Your task to perform on an android device: move a message to another label in the gmail app Image 0: 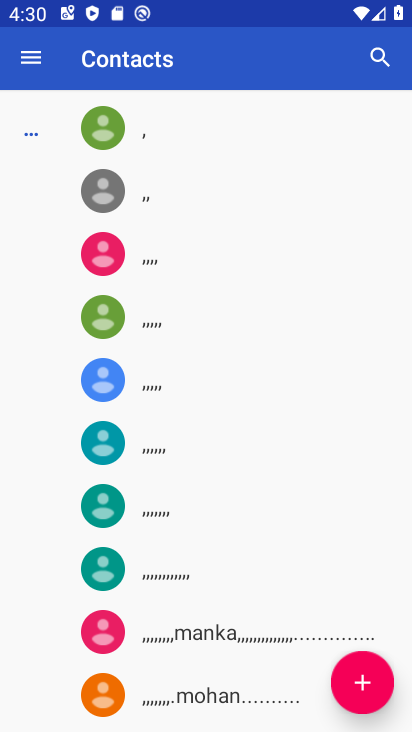
Step 0: press home button
Your task to perform on an android device: move a message to another label in the gmail app Image 1: 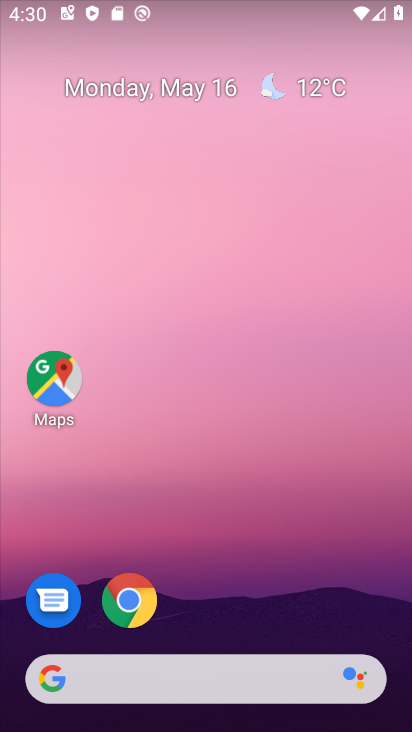
Step 1: drag from (165, 624) to (165, 369)
Your task to perform on an android device: move a message to another label in the gmail app Image 2: 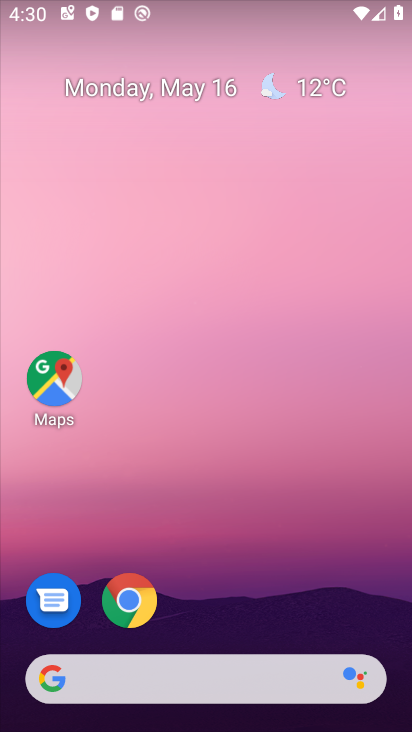
Step 2: drag from (186, 651) to (186, 263)
Your task to perform on an android device: move a message to another label in the gmail app Image 3: 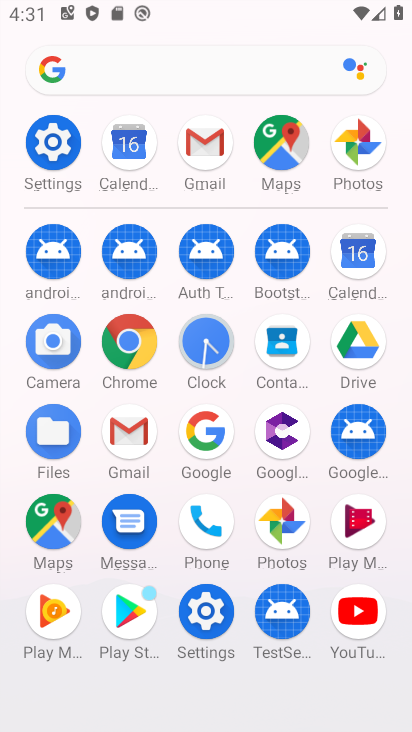
Step 3: click (207, 123)
Your task to perform on an android device: move a message to another label in the gmail app Image 4: 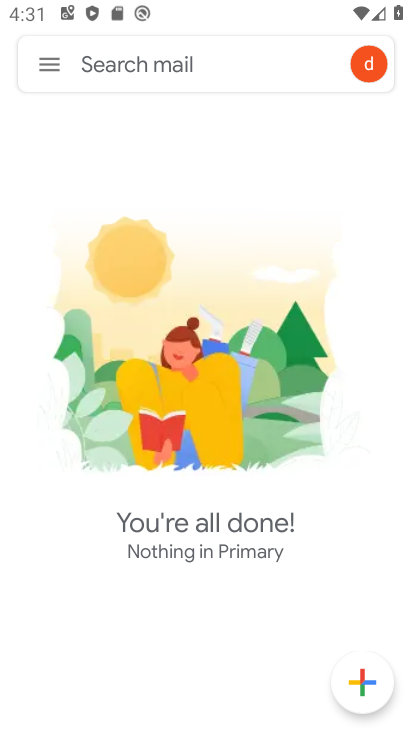
Step 4: task complete